Your task to perform on an android device: open chrome and create a bookmark for the current page Image 0: 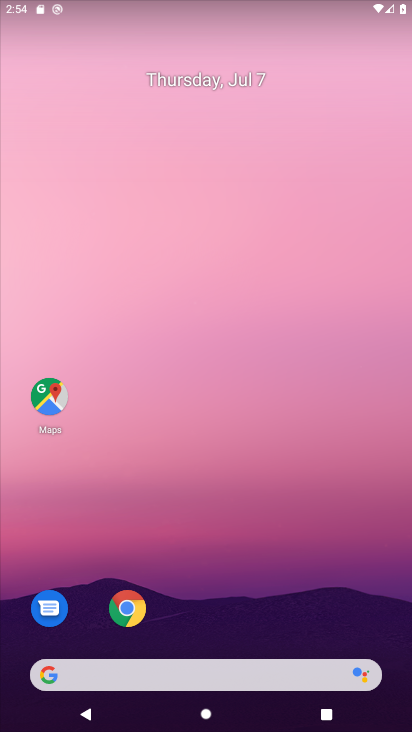
Step 0: drag from (223, 634) to (244, 85)
Your task to perform on an android device: open chrome and create a bookmark for the current page Image 1: 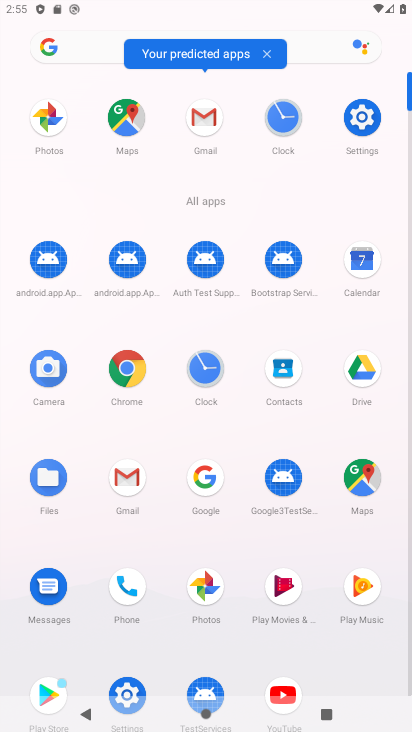
Step 1: click (126, 365)
Your task to perform on an android device: open chrome and create a bookmark for the current page Image 2: 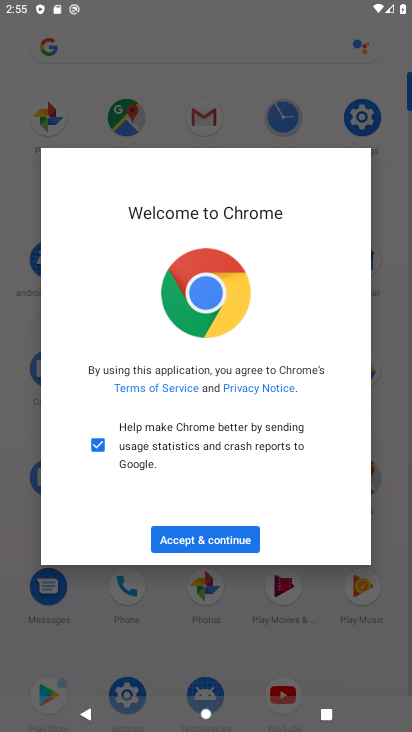
Step 2: click (200, 536)
Your task to perform on an android device: open chrome and create a bookmark for the current page Image 3: 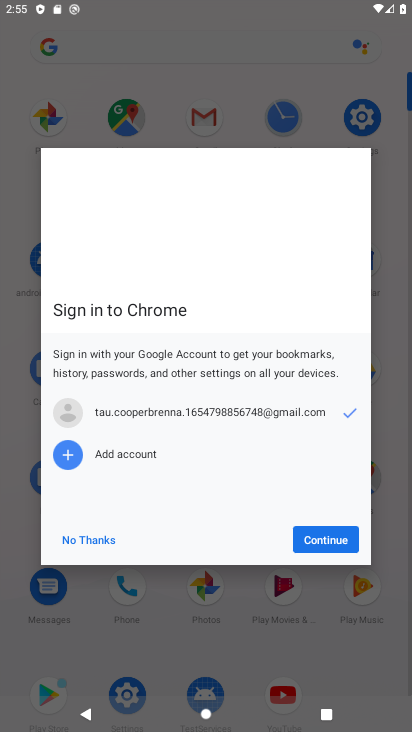
Step 3: click (330, 539)
Your task to perform on an android device: open chrome and create a bookmark for the current page Image 4: 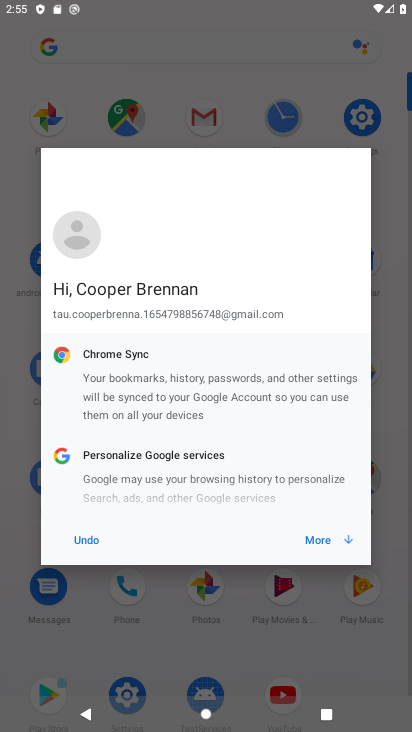
Step 4: click (330, 539)
Your task to perform on an android device: open chrome and create a bookmark for the current page Image 5: 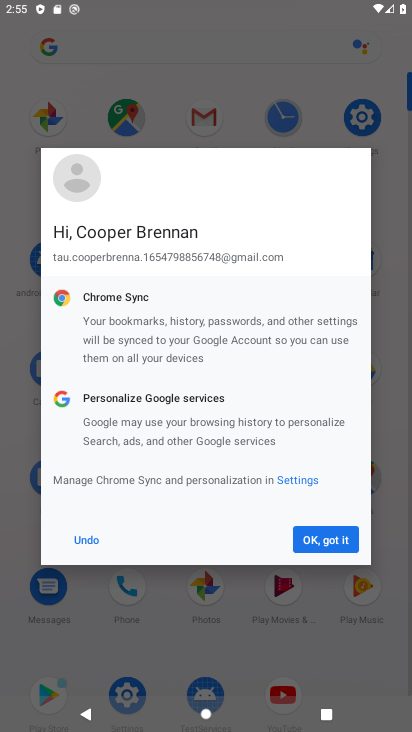
Step 5: click (325, 545)
Your task to perform on an android device: open chrome and create a bookmark for the current page Image 6: 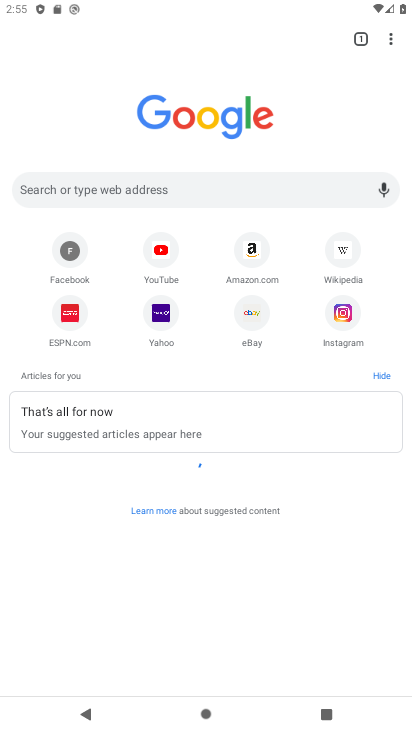
Step 6: click (391, 39)
Your task to perform on an android device: open chrome and create a bookmark for the current page Image 7: 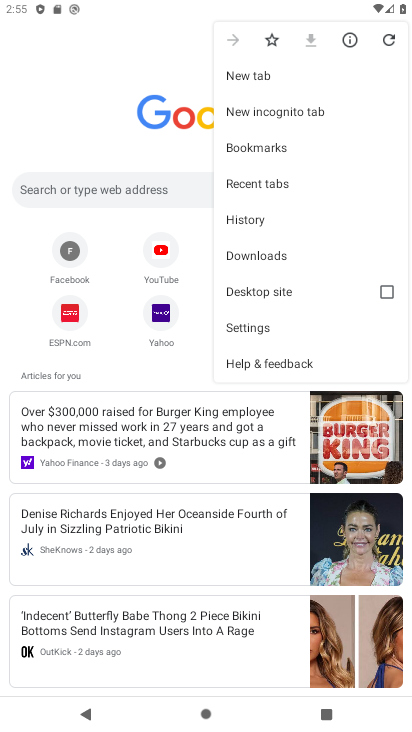
Step 7: click (289, 143)
Your task to perform on an android device: open chrome and create a bookmark for the current page Image 8: 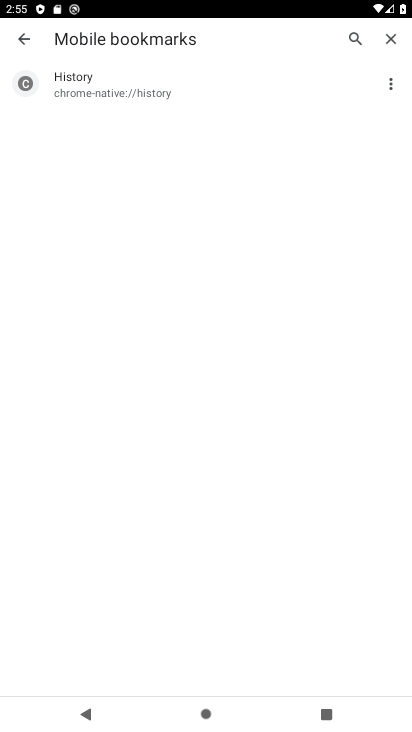
Step 8: click (61, 72)
Your task to perform on an android device: open chrome and create a bookmark for the current page Image 9: 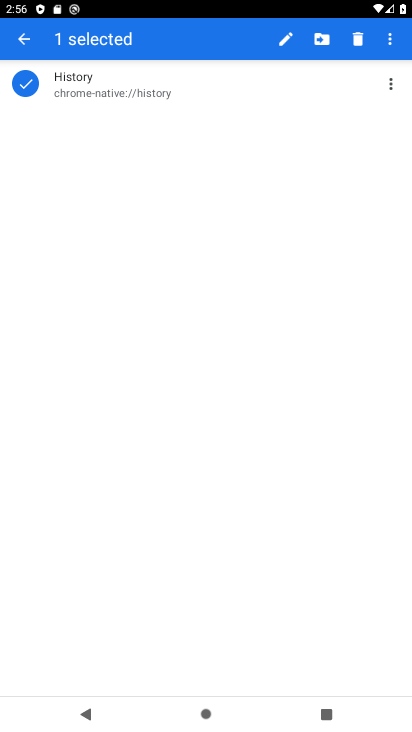
Step 9: task complete